Your task to perform on an android device: Open the phone app and click the voicemail tab. Image 0: 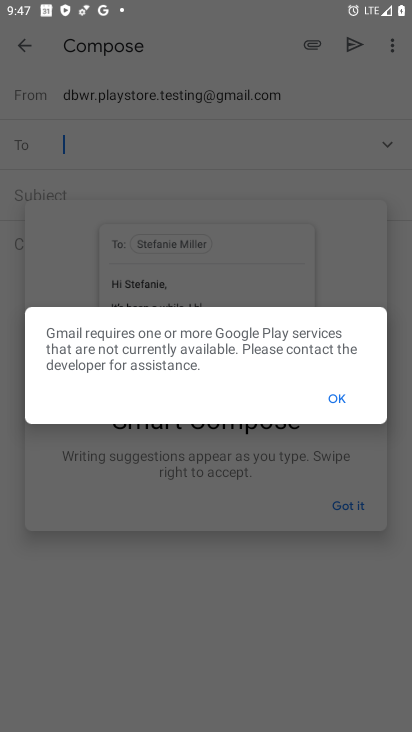
Step 0: press home button
Your task to perform on an android device: Open the phone app and click the voicemail tab. Image 1: 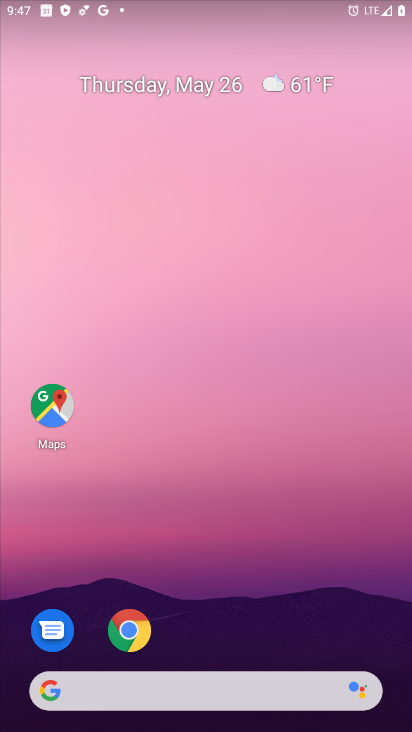
Step 1: drag from (226, 644) to (208, 75)
Your task to perform on an android device: Open the phone app and click the voicemail tab. Image 2: 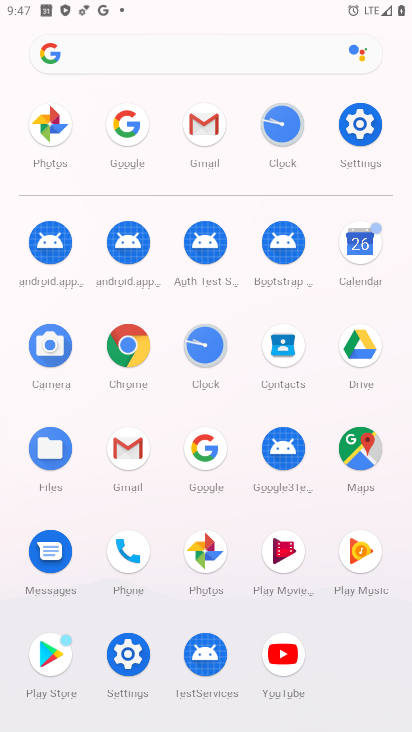
Step 2: click (122, 537)
Your task to perform on an android device: Open the phone app and click the voicemail tab. Image 3: 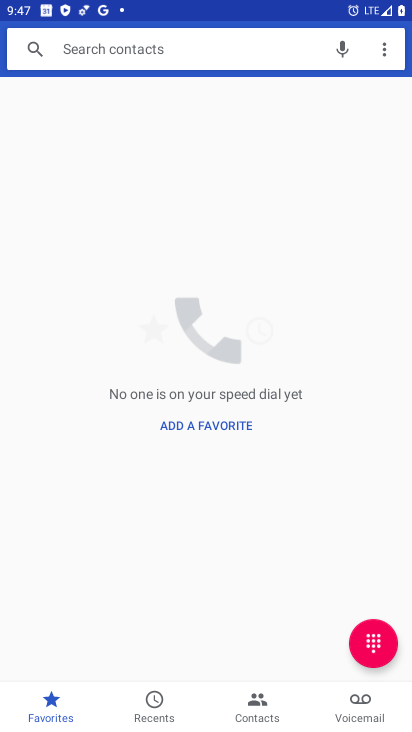
Step 3: click (354, 709)
Your task to perform on an android device: Open the phone app and click the voicemail tab. Image 4: 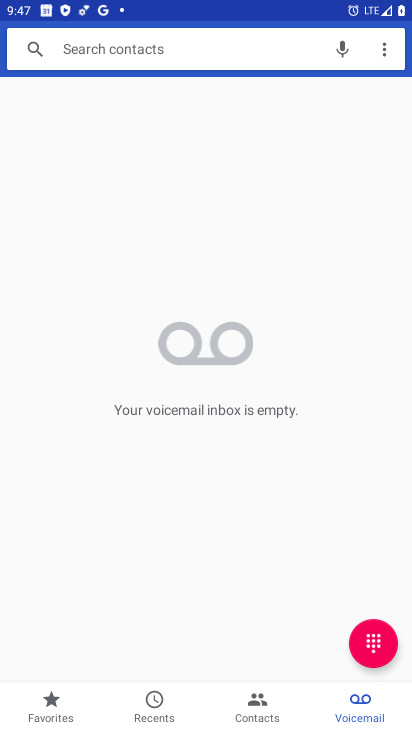
Step 4: task complete